Your task to perform on an android device: Check the weather Image 0: 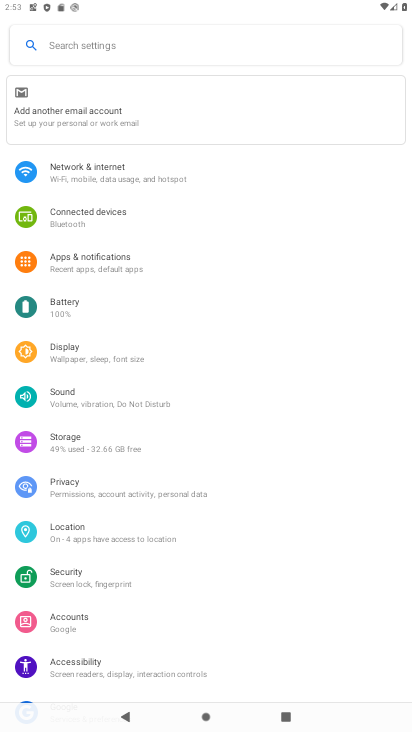
Step 0: press home button
Your task to perform on an android device: Check the weather Image 1: 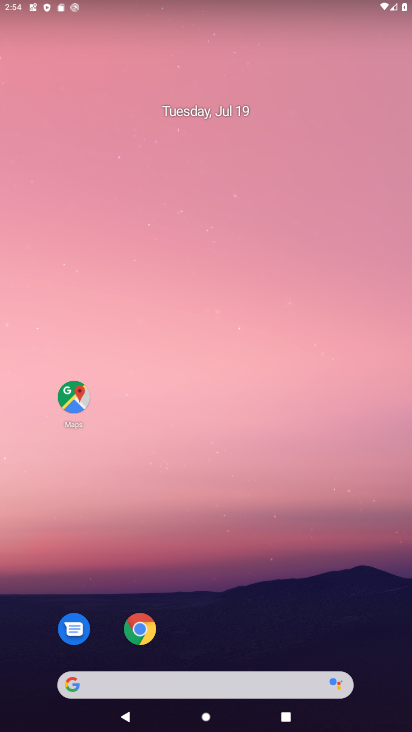
Step 1: click (145, 633)
Your task to perform on an android device: Check the weather Image 2: 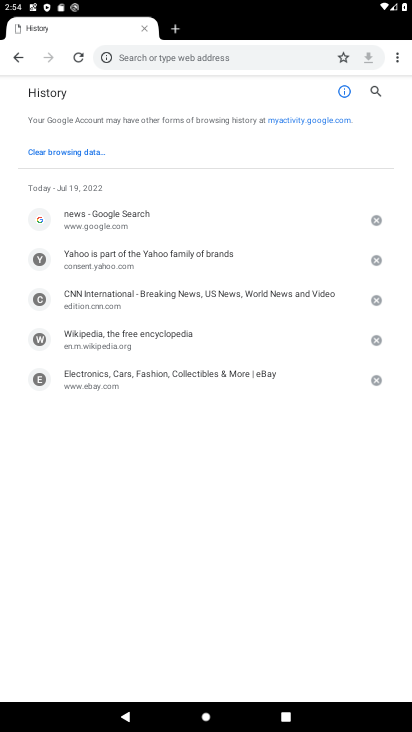
Step 2: click (176, 61)
Your task to perform on an android device: Check the weather Image 3: 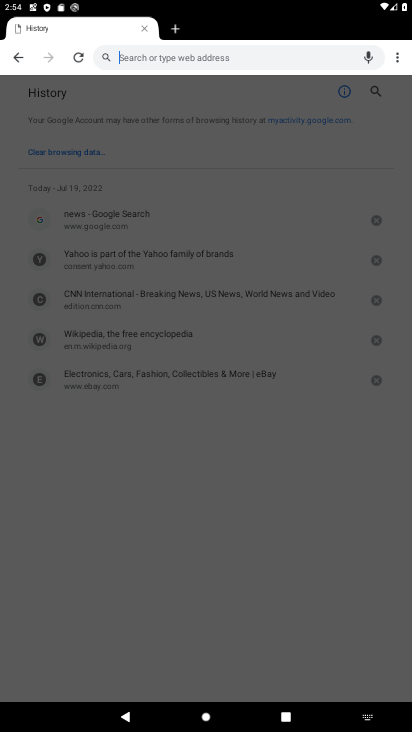
Step 3: type "weather"
Your task to perform on an android device: Check the weather Image 4: 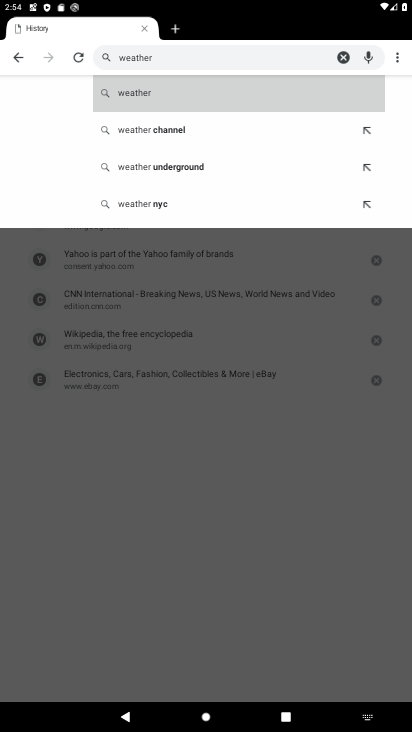
Step 4: click (143, 101)
Your task to perform on an android device: Check the weather Image 5: 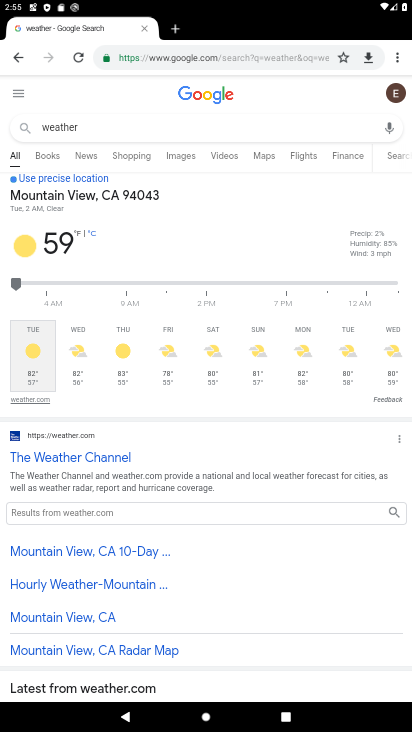
Step 5: task complete